Your task to perform on an android device: Search for razer naga on newegg.com, select the first entry, and add it to the cart. Image 0: 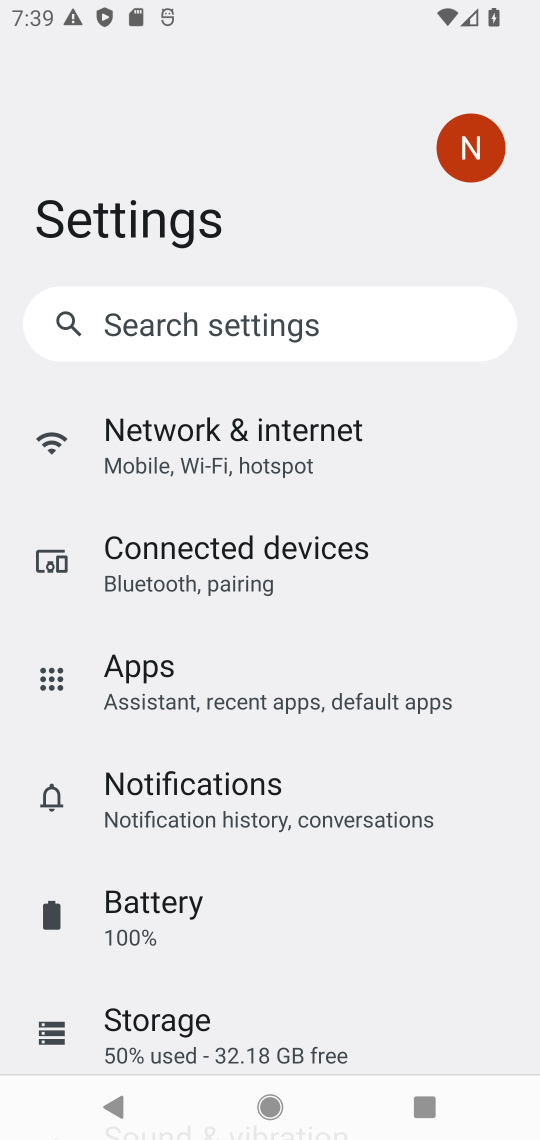
Step 0: press home button
Your task to perform on an android device: Search for razer naga on newegg.com, select the first entry, and add it to the cart. Image 1: 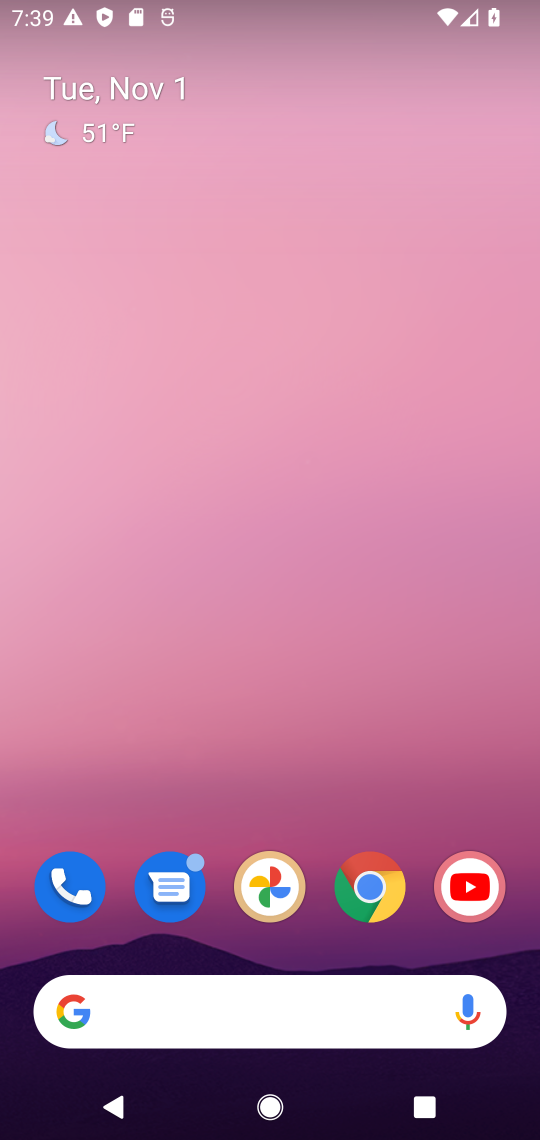
Step 1: drag from (225, 907) to (298, 164)
Your task to perform on an android device: Search for razer naga on newegg.com, select the first entry, and add it to the cart. Image 2: 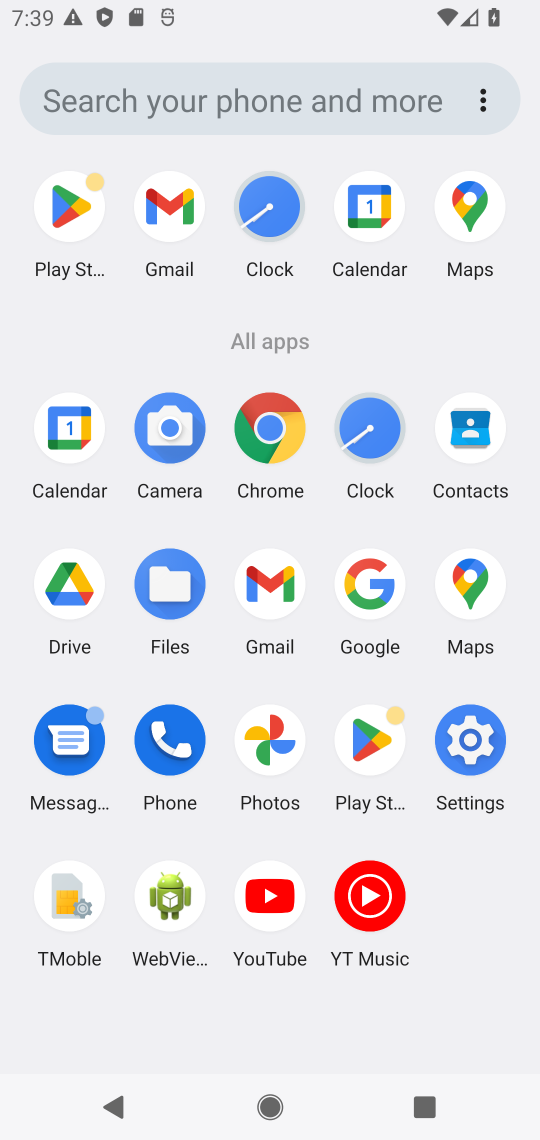
Step 2: click (363, 572)
Your task to perform on an android device: Search for razer naga on newegg.com, select the first entry, and add it to the cart. Image 3: 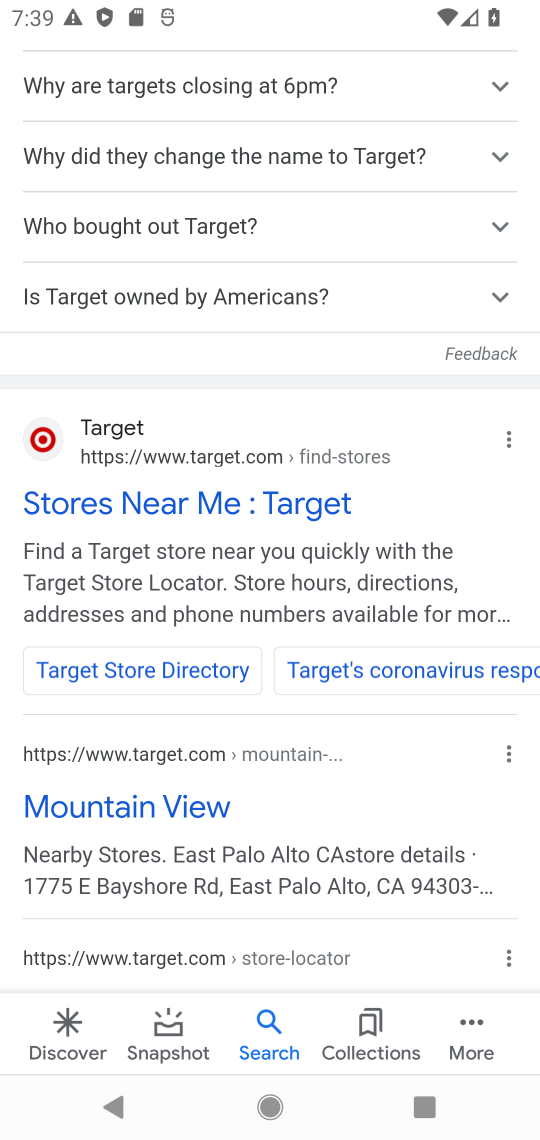
Step 3: drag from (322, 120) to (309, 799)
Your task to perform on an android device: Search for razer naga on newegg.com, select the first entry, and add it to the cart. Image 4: 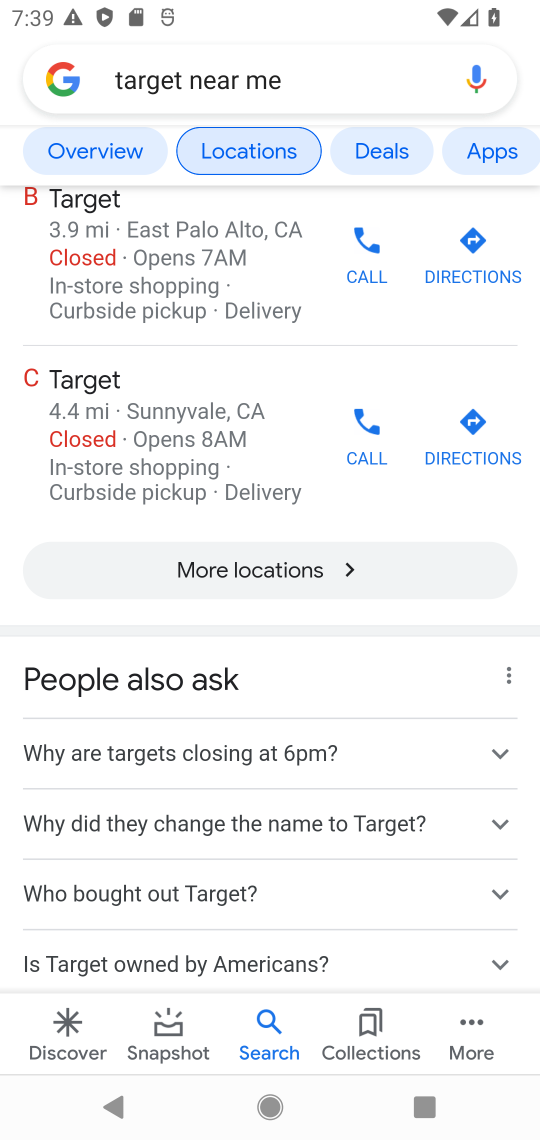
Step 4: drag from (324, 143) to (327, 608)
Your task to perform on an android device: Search for razer naga on newegg.com, select the first entry, and add it to the cart. Image 5: 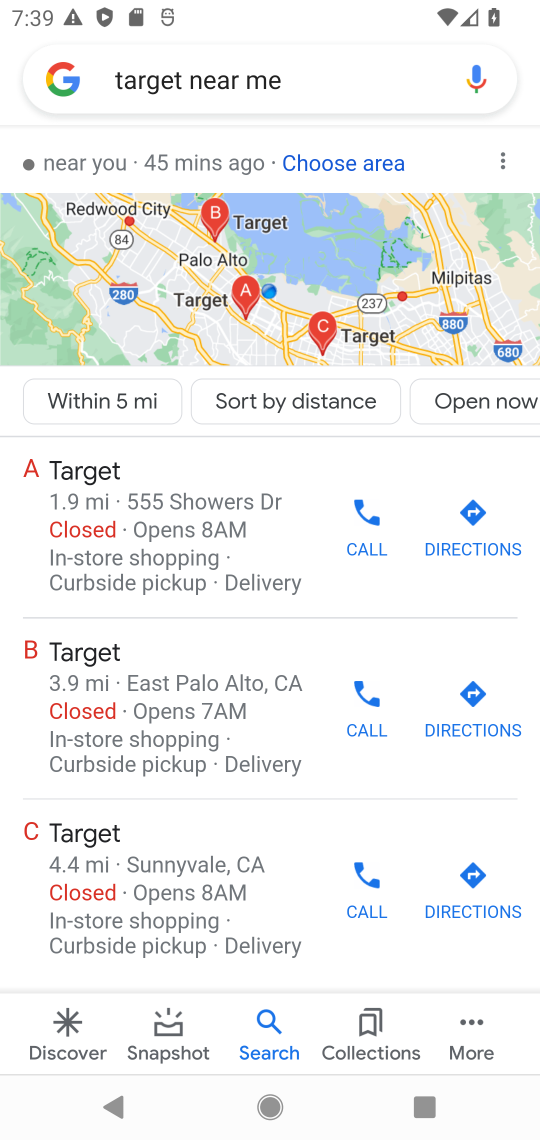
Step 5: click (311, 85)
Your task to perform on an android device: Search for razer naga on newegg.com, select the first entry, and add it to the cart. Image 6: 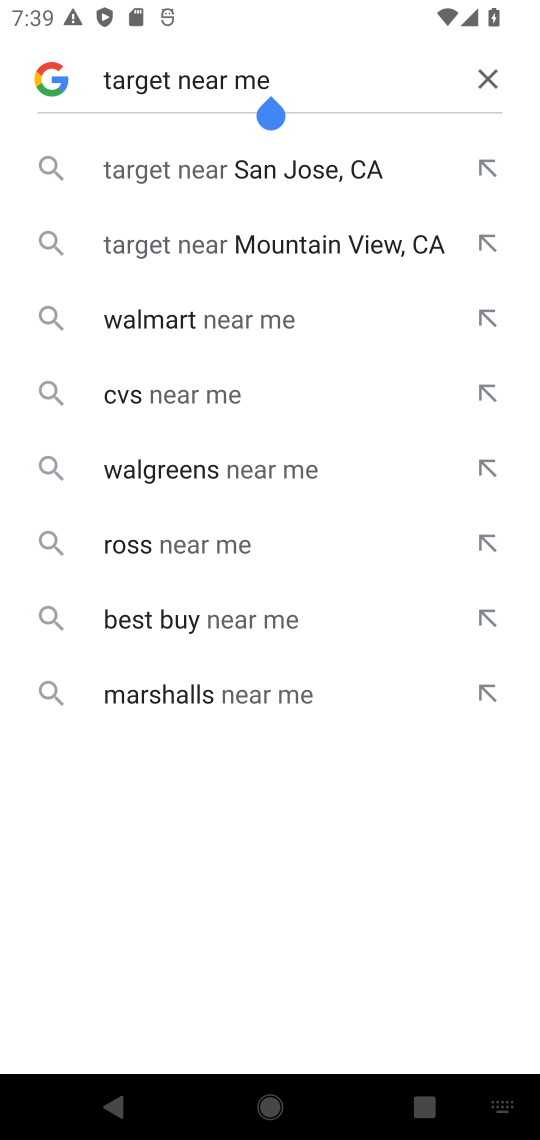
Step 6: click (485, 64)
Your task to perform on an android device: Search for razer naga on newegg.com, select the first entry, and add it to the cart. Image 7: 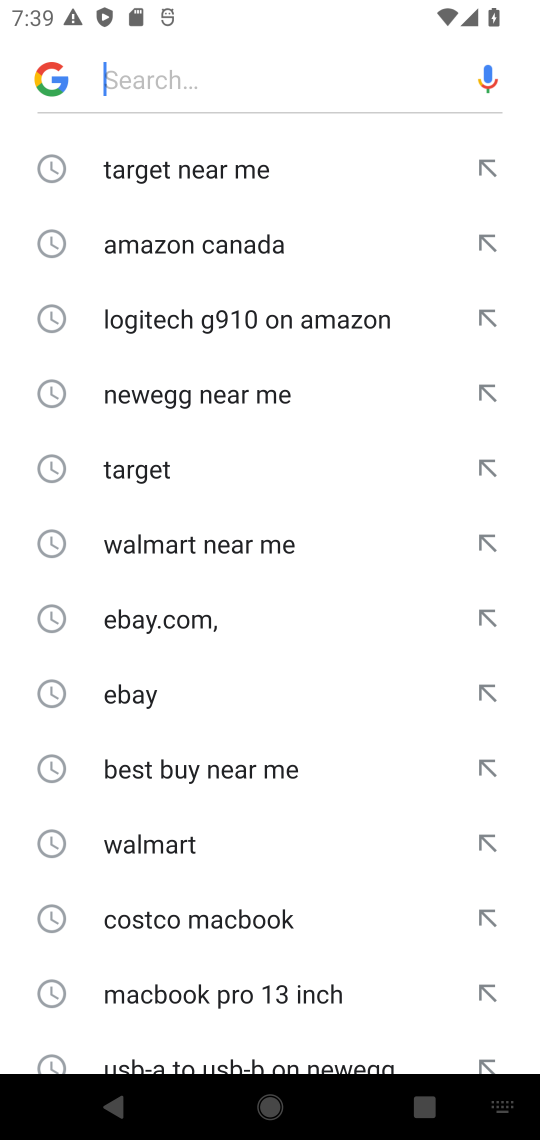
Step 7: click (161, 56)
Your task to perform on an android device: Search for razer naga on newegg.com, select the first entry, and add it to the cart. Image 8: 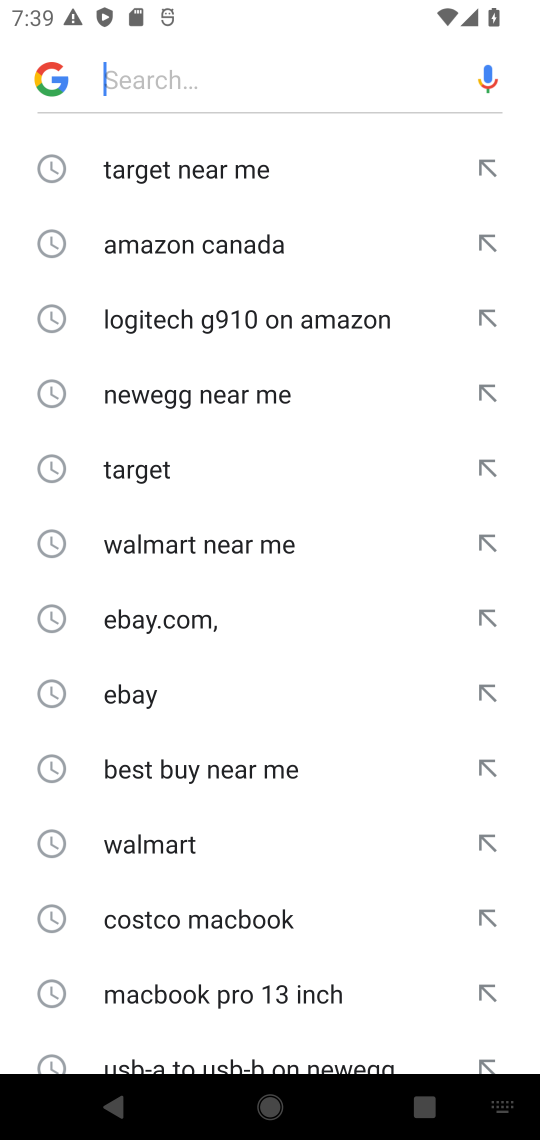
Step 8: type "newegg "
Your task to perform on an android device: Search for razer naga on newegg.com, select the first entry, and add it to the cart. Image 9: 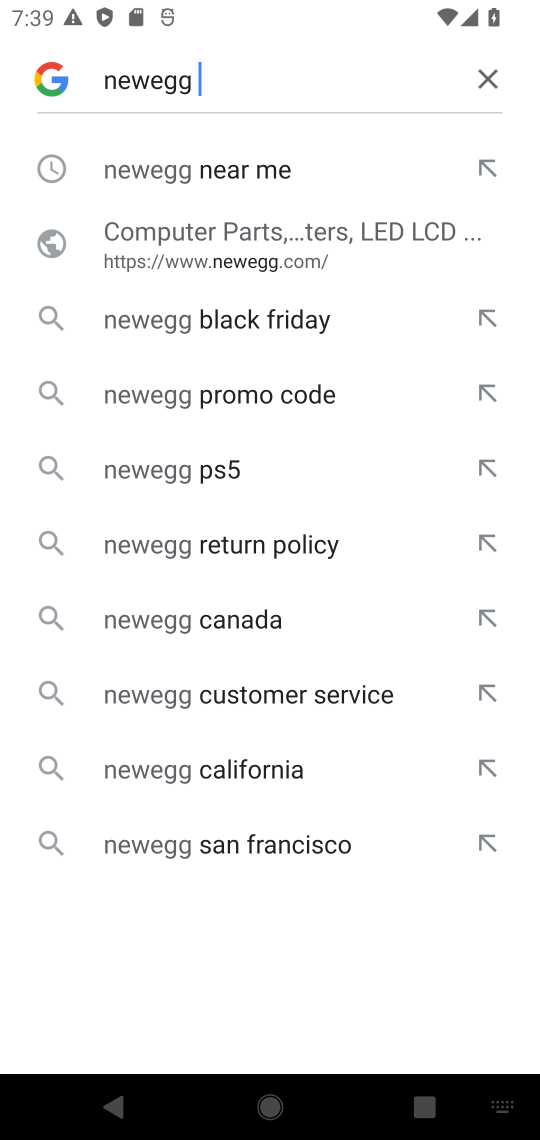
Step 9: click (194, 173)
Your task to perform on an android device: Search for razer naga on newegg.com, select the first entry, and add it to the cart. Image 10: 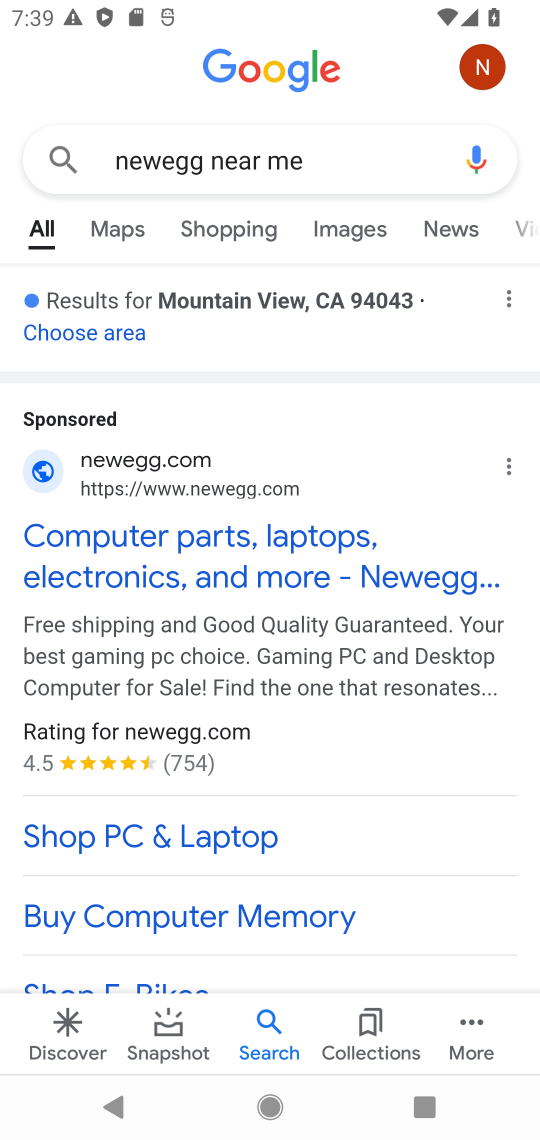
Step 10: drag from (149, 895) to (203, 208)
Your task to perform on an android device: Search for razer naga on newegg.com, select the first entry, and add it to the cart. Image 11: 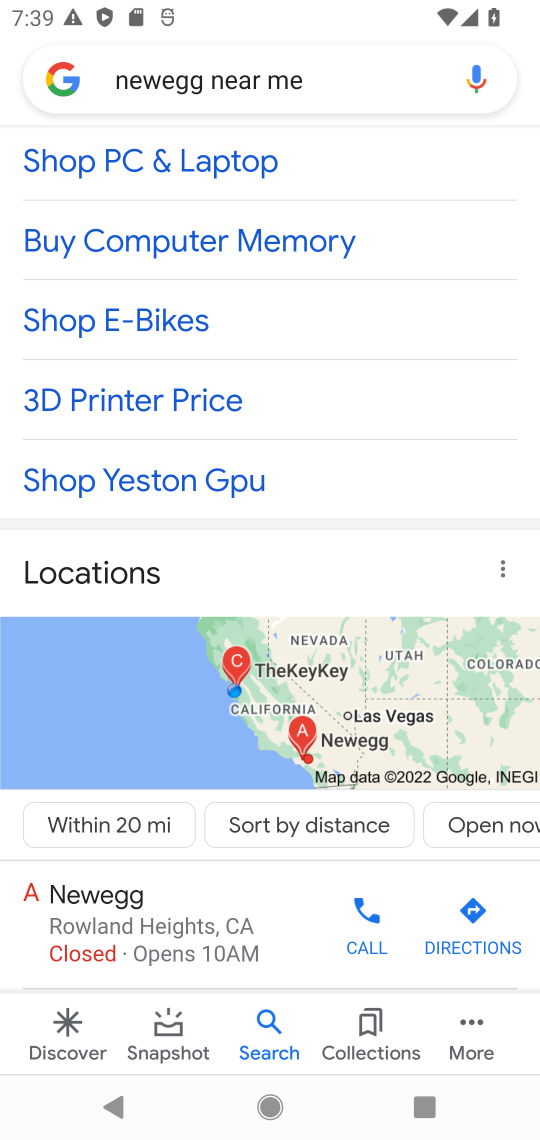
Step 11: drag from (136, 845) to (237, 145)
Your task to perform on an android device: Search for razer naga on newegg.com, select the first entry, and add it to the cart. Image 12: 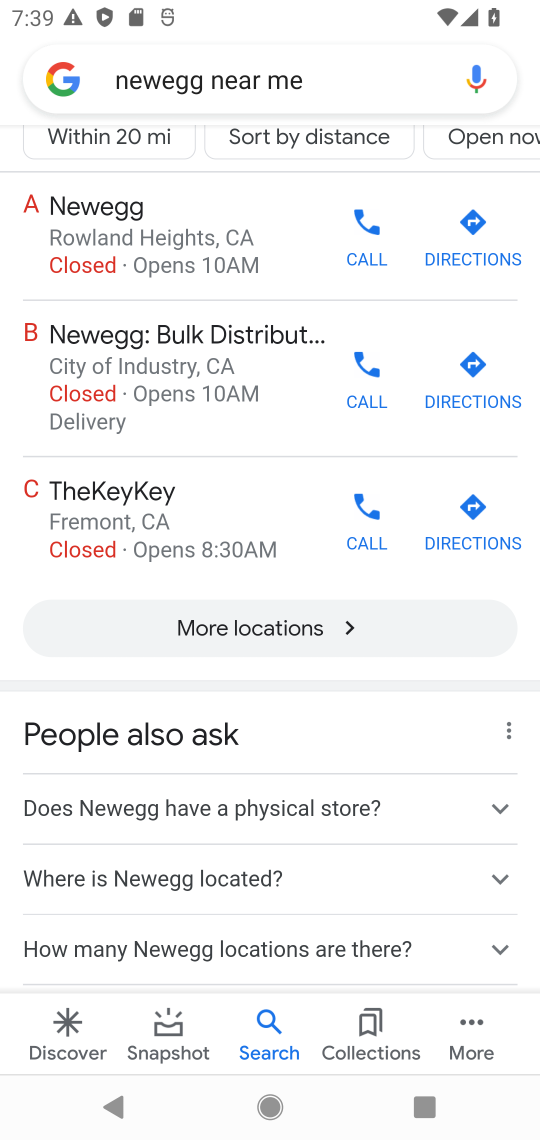
Step 12: drag from (182, 919) to (327, 208)
Your task to perform on an android device: Search for razer naga on newegg.com, select the first entry, and add it to the cart. Image 13: 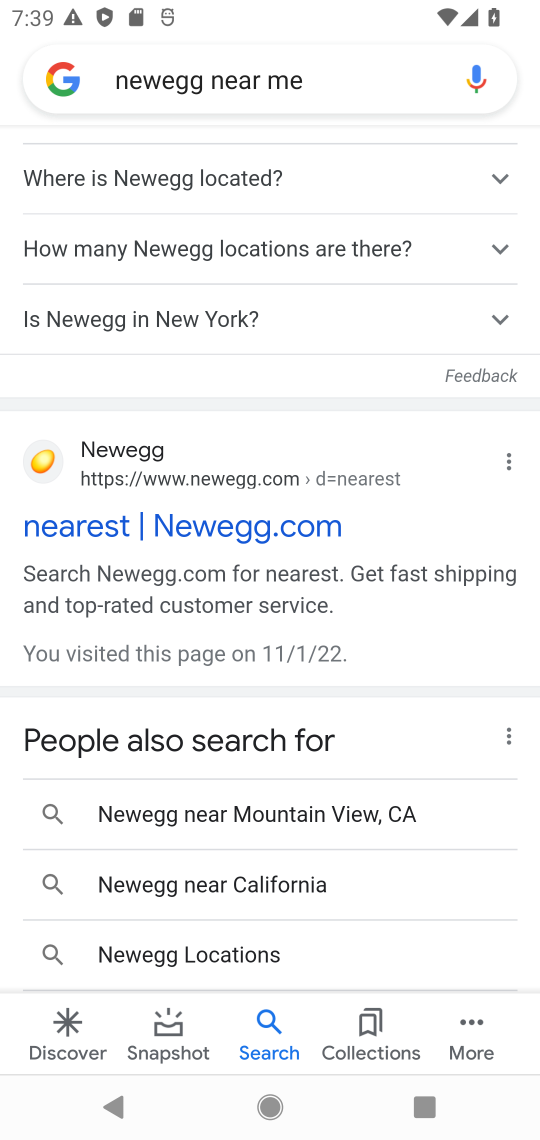
Step 13: click (46, 453)
Your task to perform on an android device: Search for razer naga on newegg.com, select the first entry, and add it to the cart. Image 14: 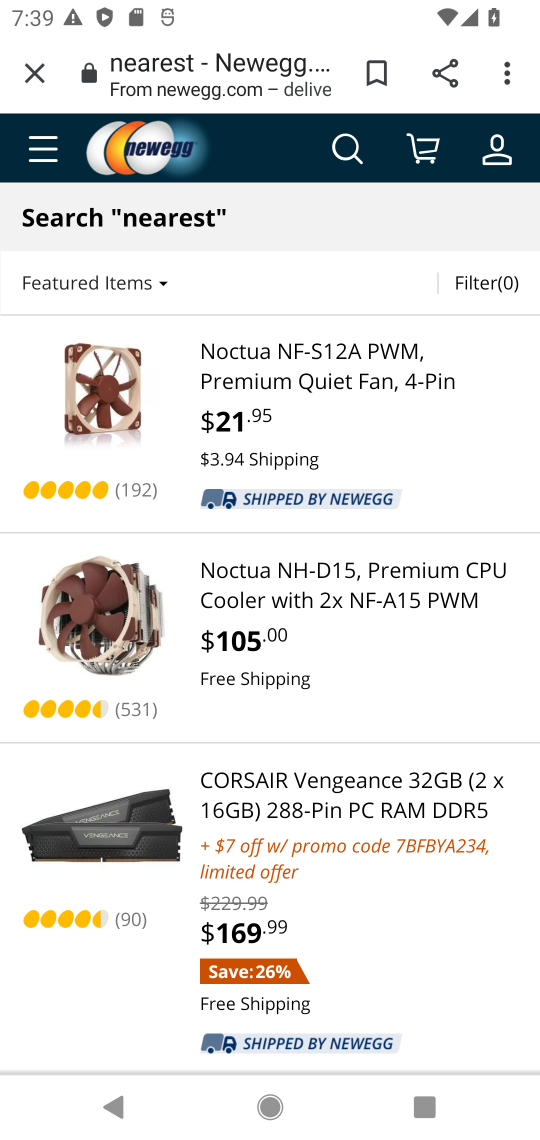
Step 14: click (341, 149)
Your task to perform on an android device: Search for razer naga on newegg.com, select the first entry, and add it to the cart. Image 15: 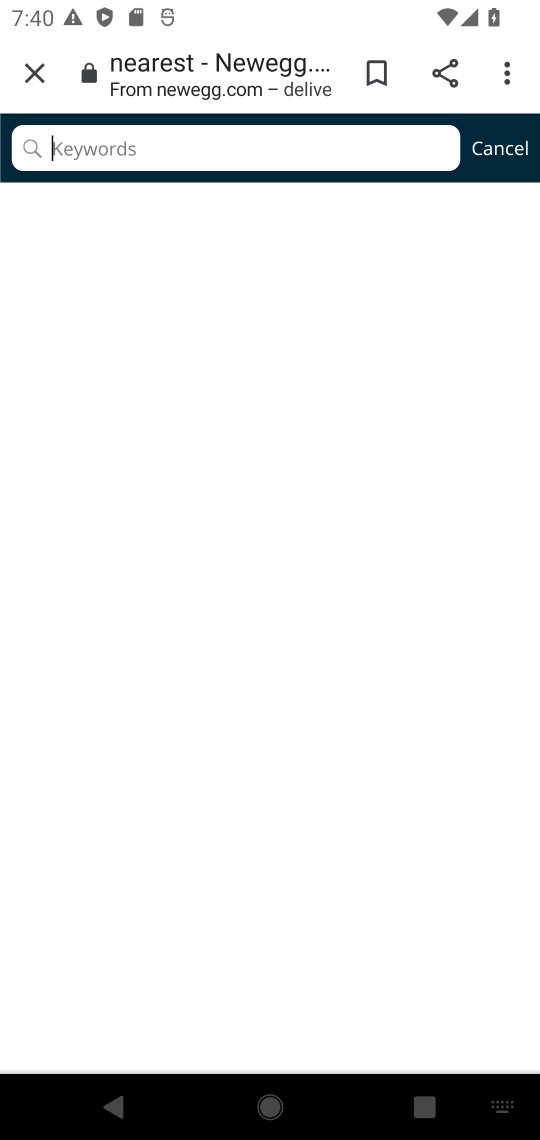
Step 15: click (289, 138)
Your task to perform on an android device: Search for razer naga on newegg.com, select the first entry, and add it to the cart. Image 16: 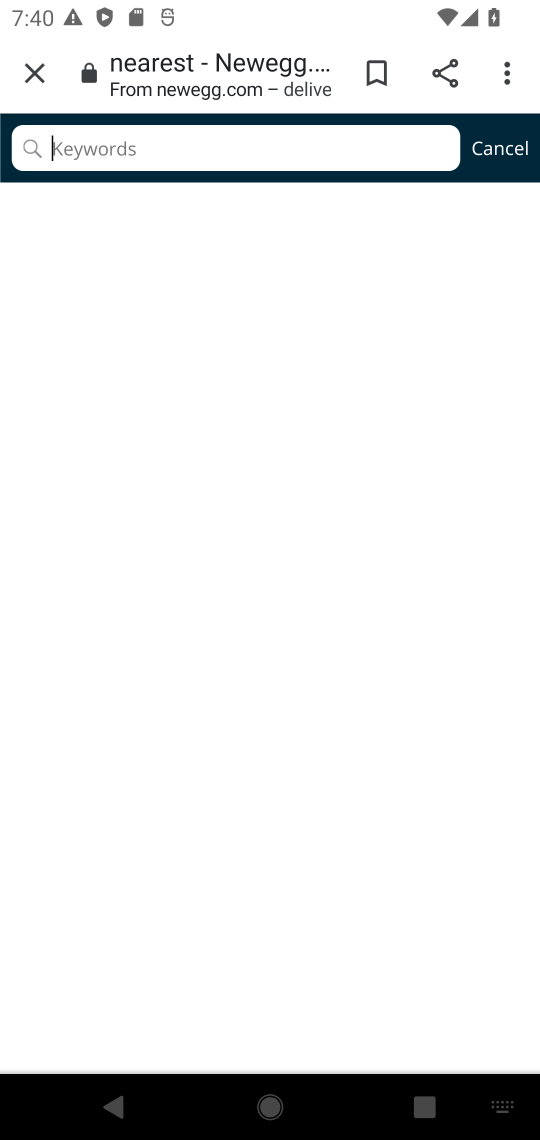
Step 16: type "razer naga  "
Your task to perform on an android device: Search for razer naga on newegg.com, select the first entry, and add it to the cart. Image 17: 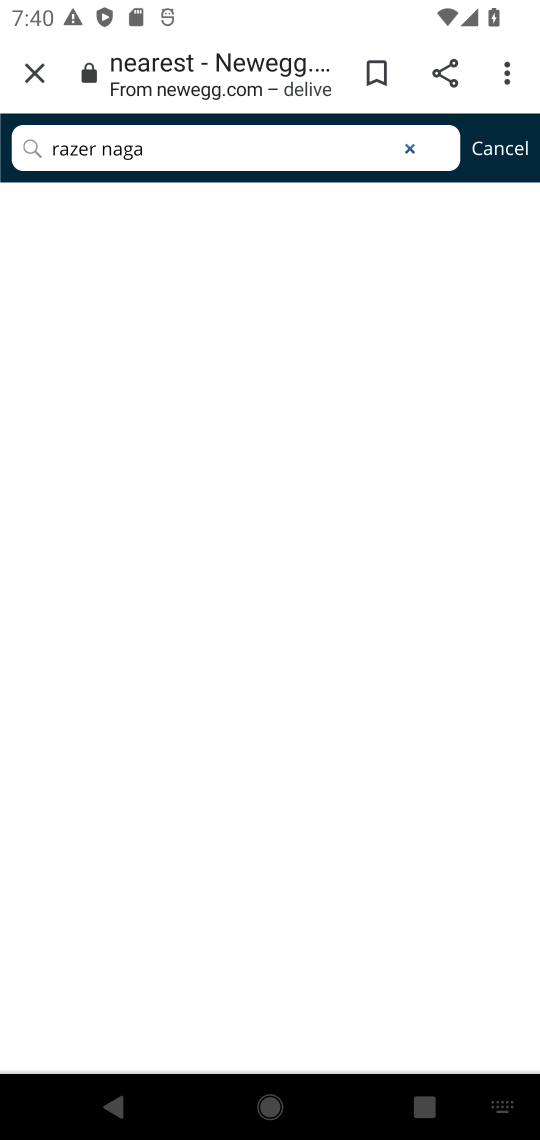
Step 17: task complete